Your task to perform on an android device: read, delete, or share a saved page in the chrome app Image 0: 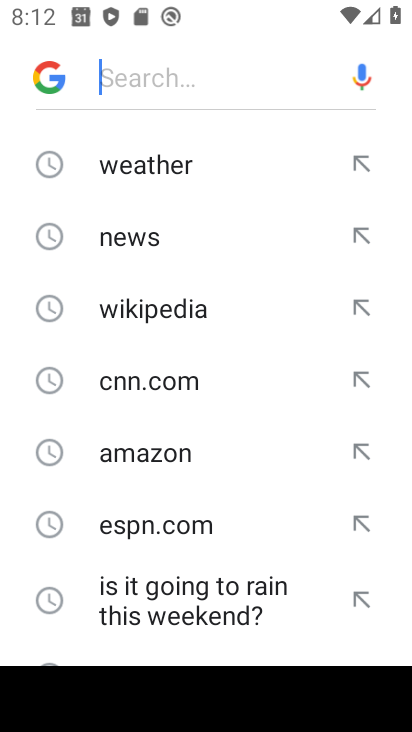
Step 0: press home button
Your task to perform on an android device: read, delete, or share a saved page in the chrome app Image 1: 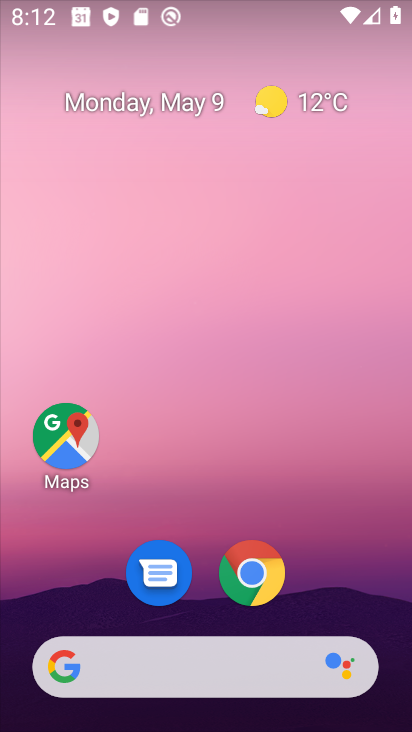
Step 1: drag from (265, 644) to (279, 101)
Your task to perform on an android device: read, delete, or share a saved page in the chrome app Image 2: 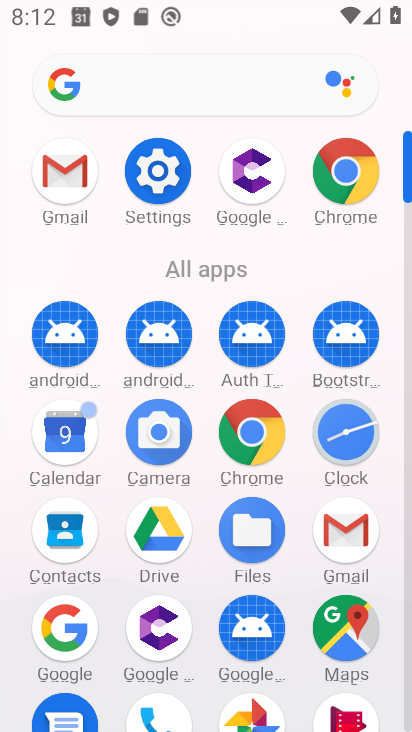
Step 2: click (330, 185)
Your task to perform on an android device: read, delete, or share a saved page in the chrome app Image 3: 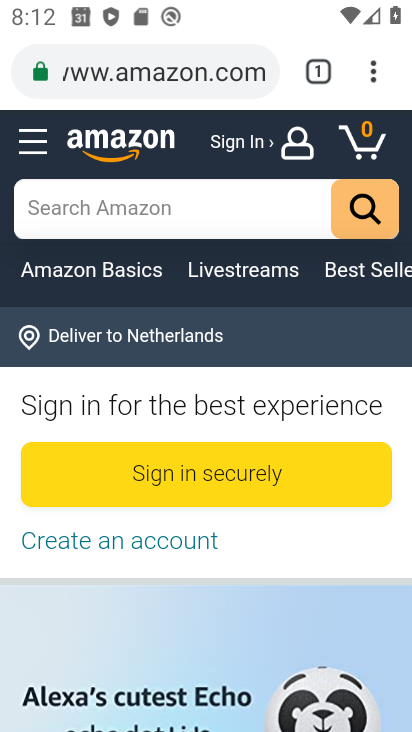
Step 3: click (376, 81)
Your task to perform on an android device: read, delete, or share a saved page in the chrome app Image 4: 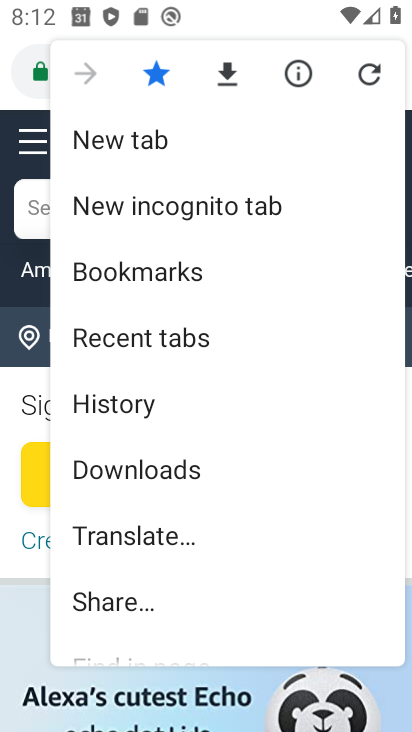
Step 4: click (219, 468)
Your task to perform on an android device: read, delete, or share a saved page in the chrome app Image 5: 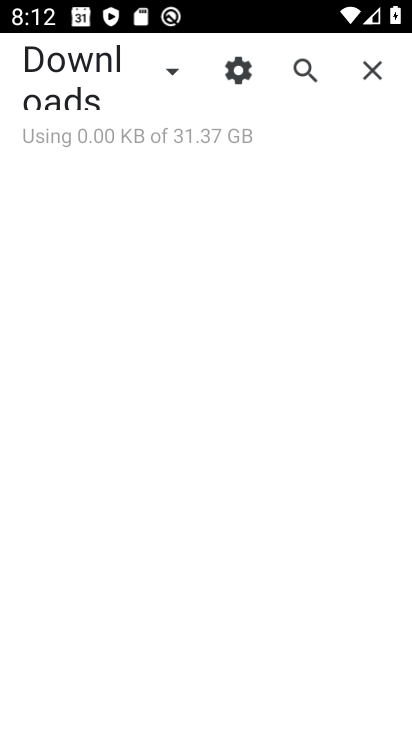
Step 5: click (170, 70)
Your task to perform on an android device: read, delete, or share a saved page in the chrome app Image 6: 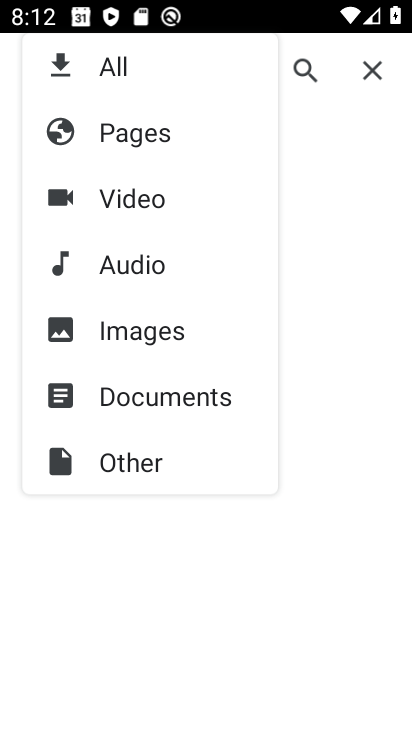
Step 6: click (138, 127)
Your task to perform on an android device: read, delete, or share a saved page in the chrome app Image 7: 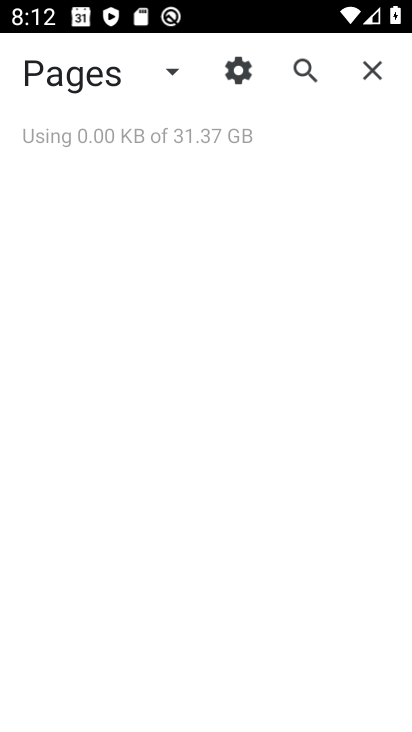
Step 7: task complete